Your task to perform on an android device: Open sound settings Image 0: 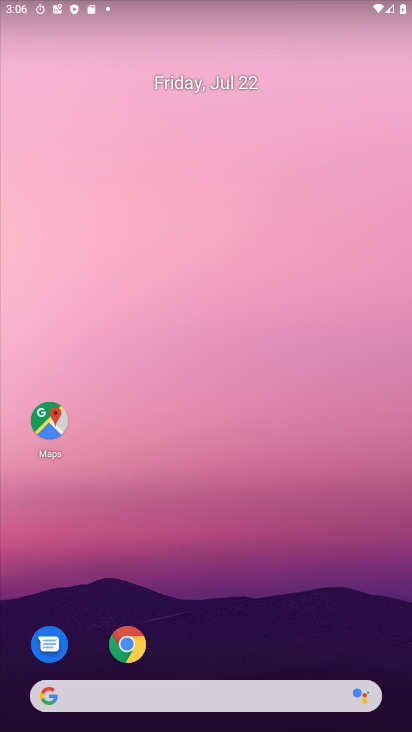
Step 0: press home button
Your task to perform on an android device: Open sound settings Image 1: 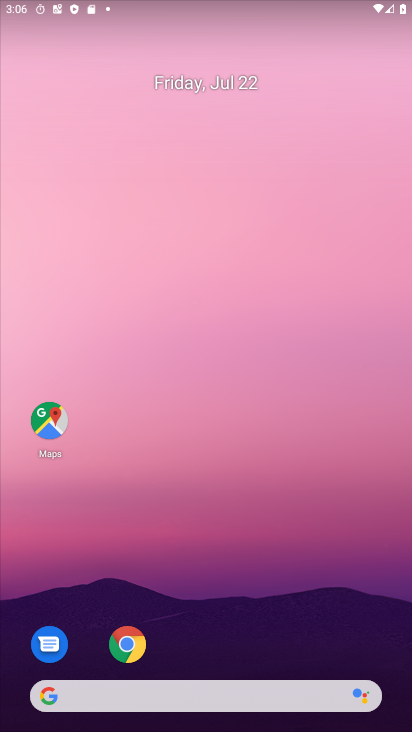
Step 1: drag from (239, 672) to (236, 190)
Your task to perform on an android device: Open sound settings Image 2: 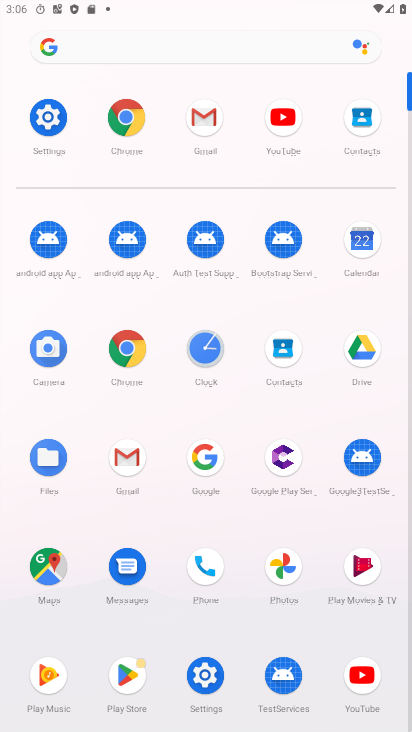
Step 2: click (44, 115)
Your task to perform on an android device: Open sound settings Image 3: 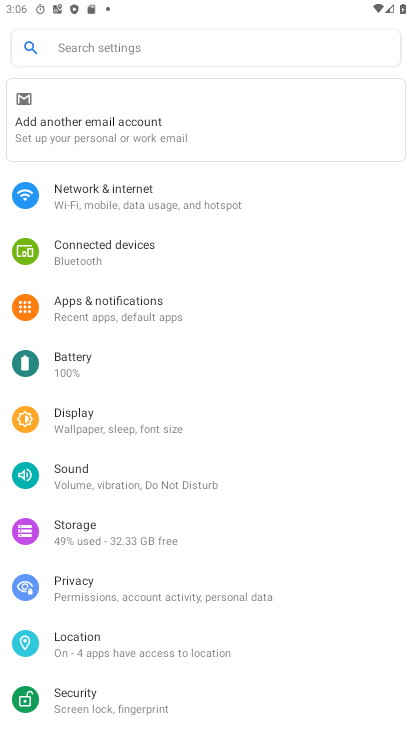
Step 3: click (73, 472)
Your task to perform on an android device: Open sound settings Image 4: 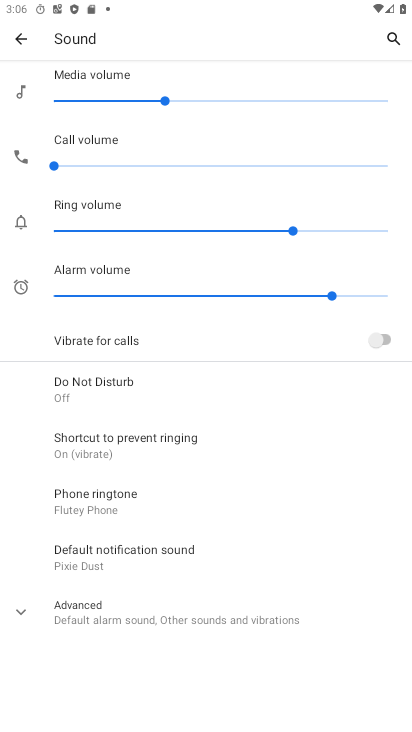
Step 4: task complete